Your task to perform on an android device: turn on the 12-hour format for clock Image 0: 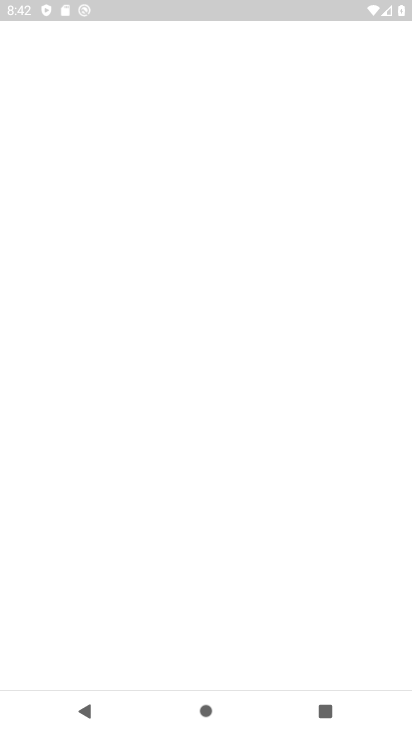
Step 0: drag from (303, 599) to (224, 341)
Your task to perform on an android device: turn on the 12-hour format for clock Image 1: 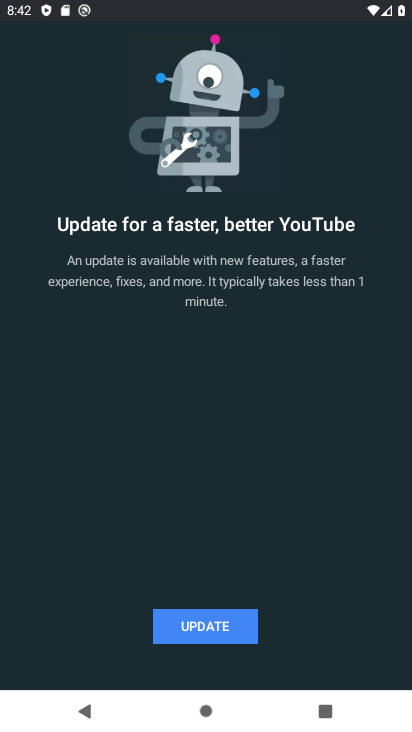
Step 1: press back button
Your task to perform on an android device: turn on the 12-hour format for clock Image 2: 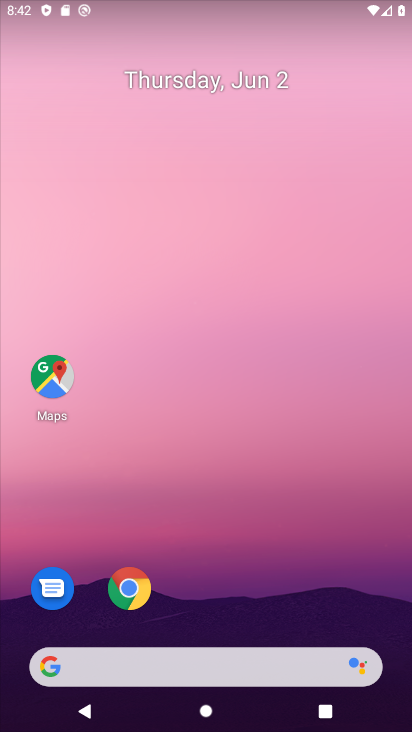
Step 2: drag from (308, 584) to (308, 215)
Your task to perform on an android device: turn on the 12-hour format for clock Image 3: 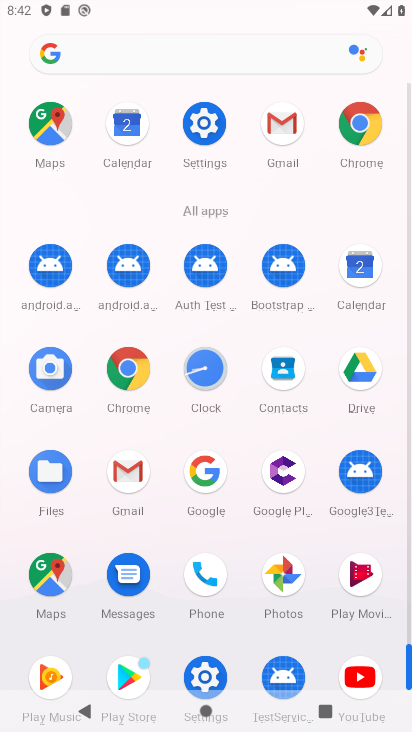
Step 3: click (187, 386)
Your task to perform on an android device: turn on the 12-hour format for clock Image 4: 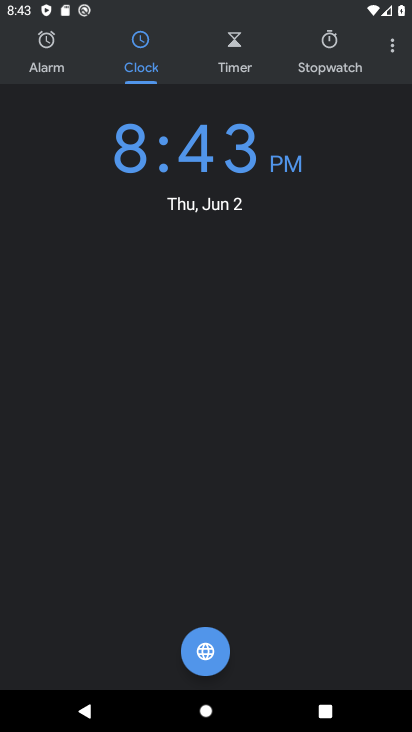
Step 4: click (398, 50)
Your task to perform on an android device: turn on the 12-hour format for clock Image 5: 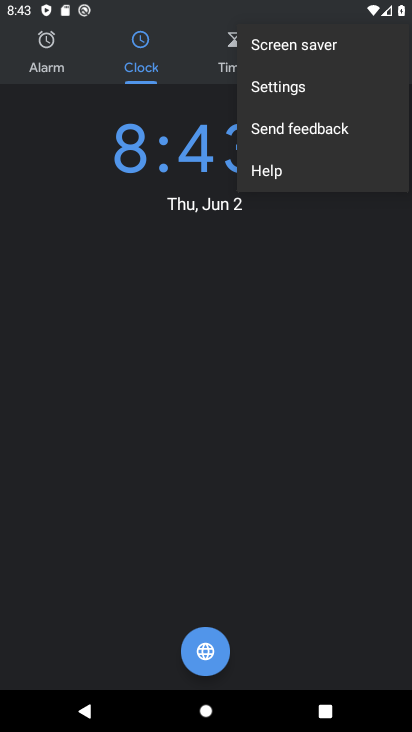
Step 5: click (292, 101)
Your task to perform on an android device: turn on the 12-hour format for clock Image 6: 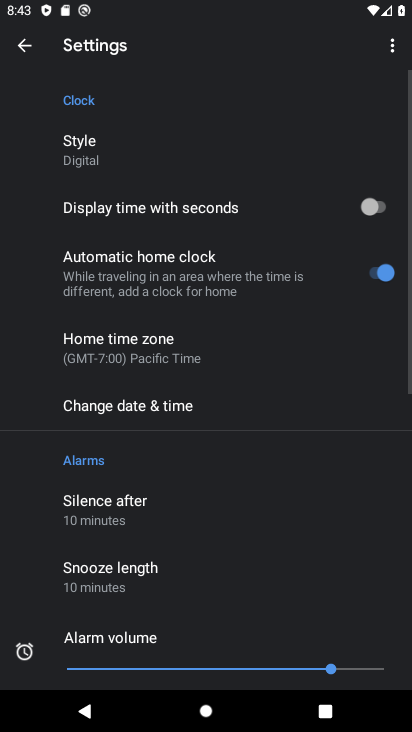
Step 6: drag from (278, 528) to (238, 303)
Your task to perform on an android device: turn on the 12-hour format for clock Image 7: 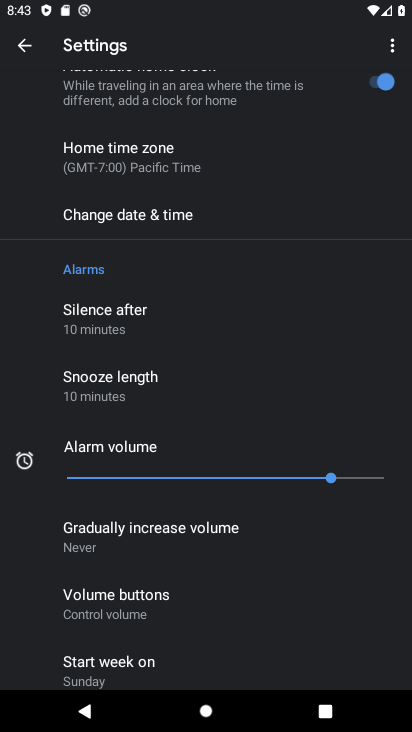
Step 7: click (202, 218)
Your task to perform on an android device: turn on the 12-hour format for clock Image 8: 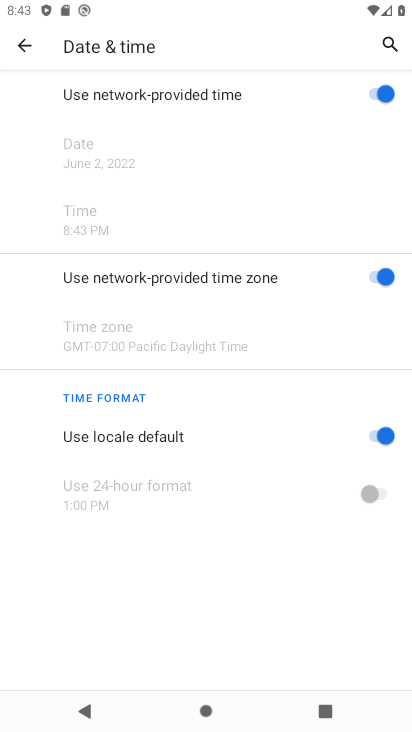
Step 8: task complete